Your task to perform on an android device: Go to Yahoo.com Image 0: 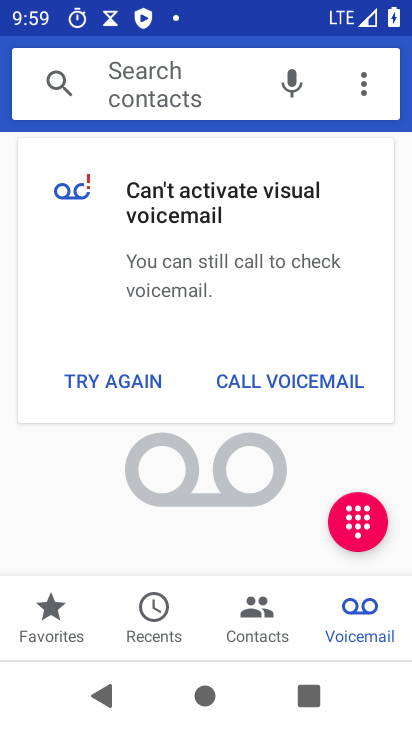
Step 0: press back button
Your task to perform on an android device: Go to Yahoo.com Image 1: 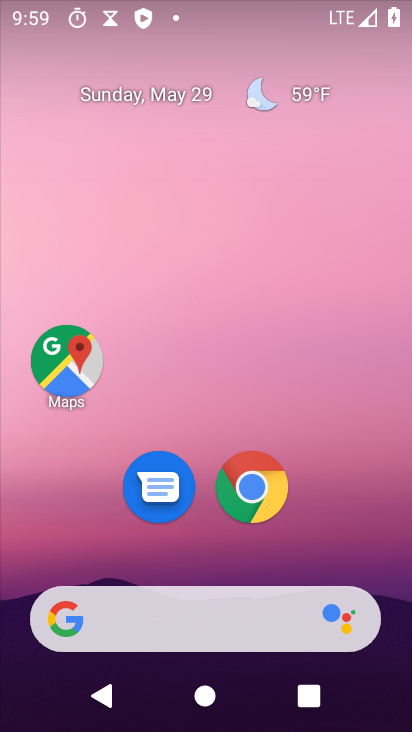
Step 1: click (250, 490)
Your task to perform on an android device: Go to Yahoo.com Image 2: 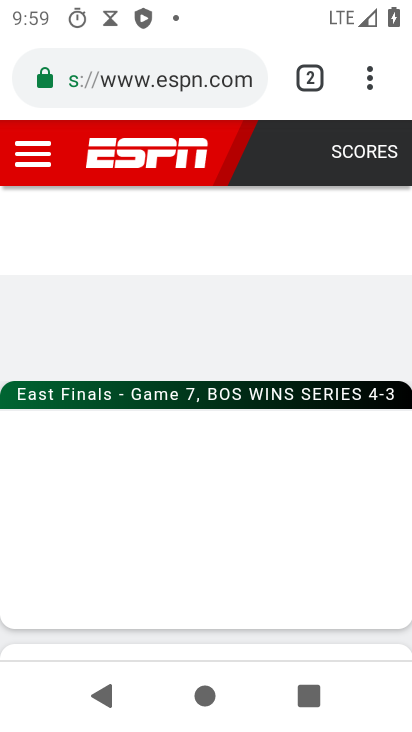
Step 2: click (251, 83)
Your task to perform on an android device: Go to Yahoo.com Image 3: 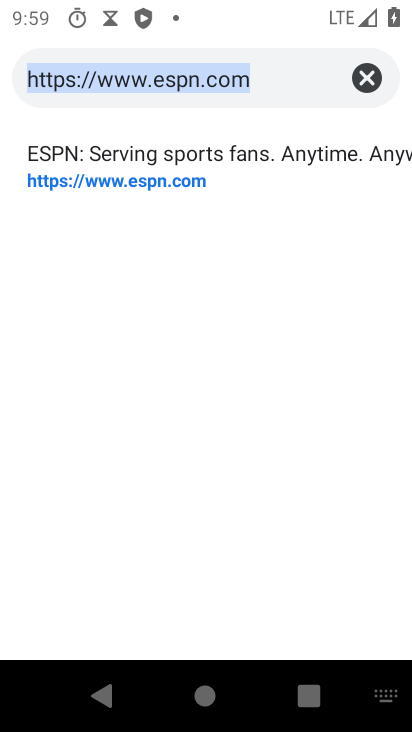
Step 3: click (366, 80)
Your task to perform on an android device: Go to Yahoo.com Image 4: 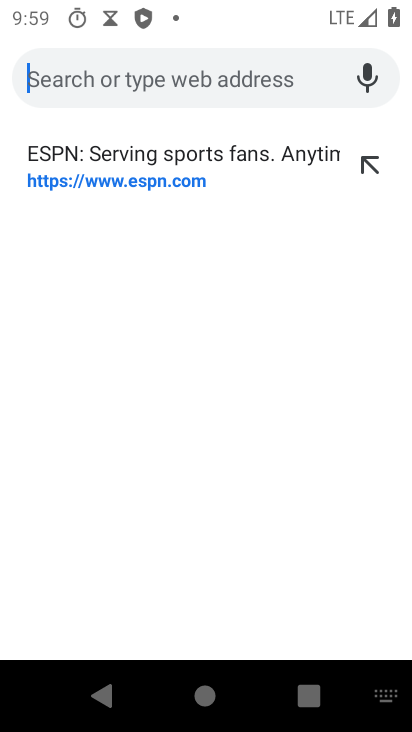
Step 4: type "Yahoo.com"
Your task to perform on an android device: Go to Yahoo.com Image 5: 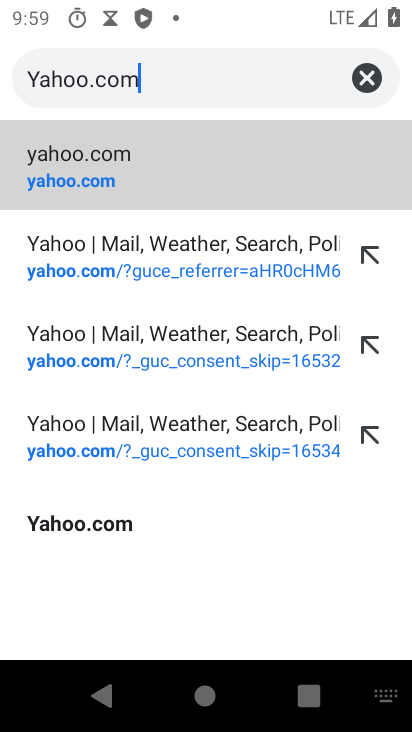
Step 5: click (81, 526)
Your task to perform on an android device: Go to Yahoo.com Image 6: 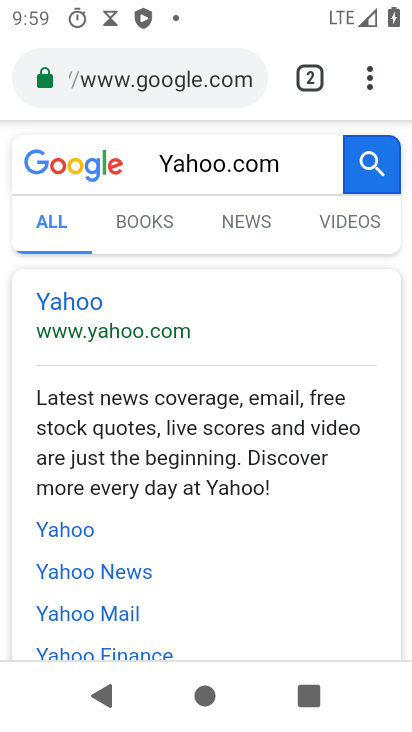
Step 6: click (133, 331)
Your task to perform on an android device: Go to Yahoo.com Image 7: 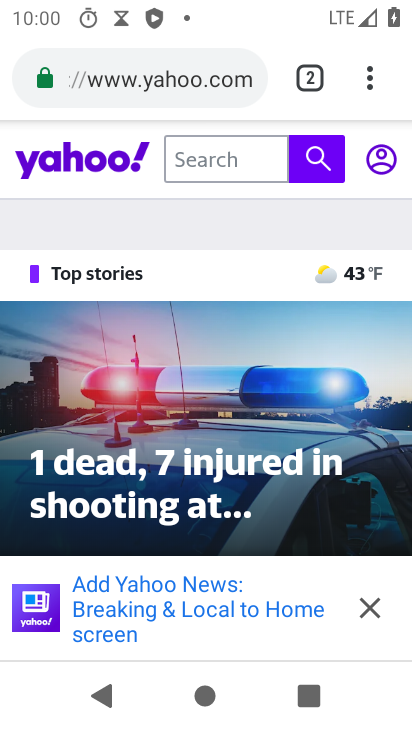
Step 7: task complete